Your task to perform on an android device: What's the weather? Image 0: 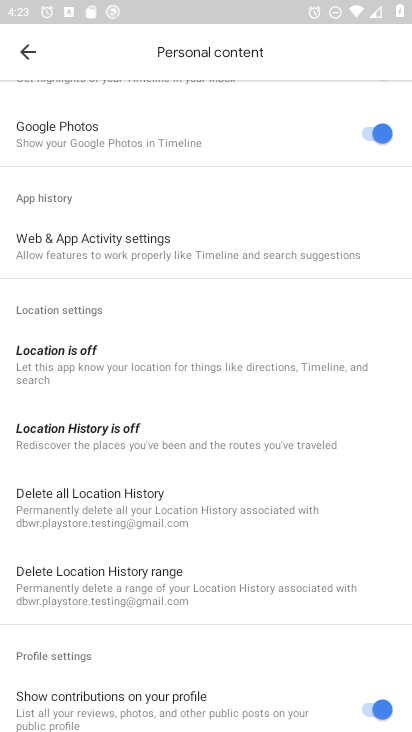
Step 0: press home button
Your task to perform on an android device: What's the weather? Image 1: 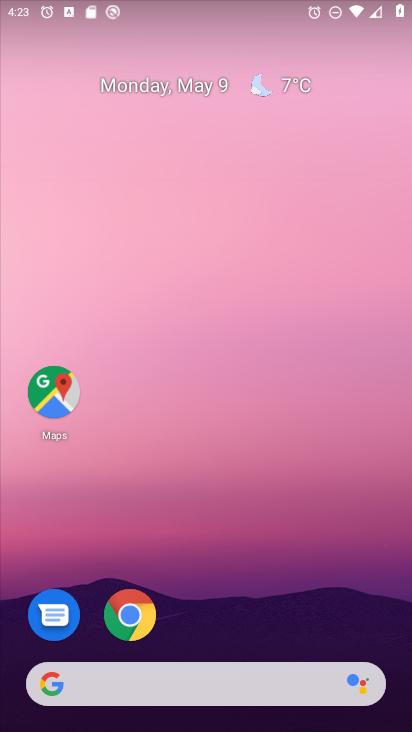
Step 1: click (276, 78)
Your task to perform on an android device: What's the weather? Image 2: 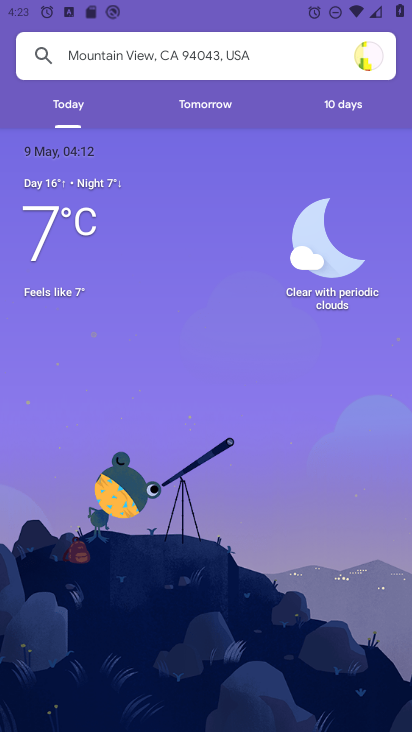
Step 2: task complete